Your task to perform on an android device: Go to settings Image 0: 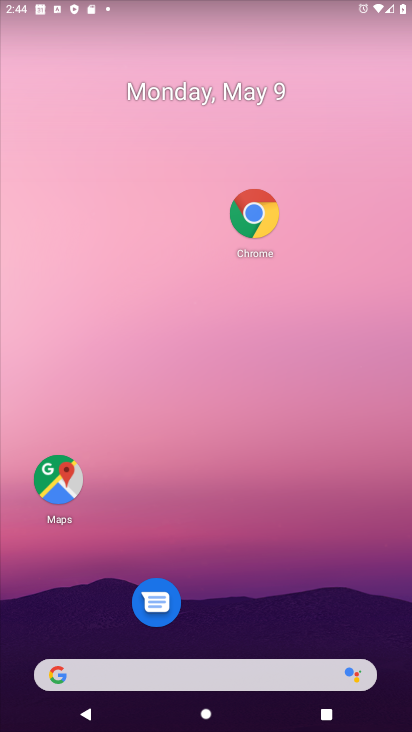
Step 0: drag from (259, 583) to (259, 402)
Your task to perform on an android device: Go to settings Image 1: 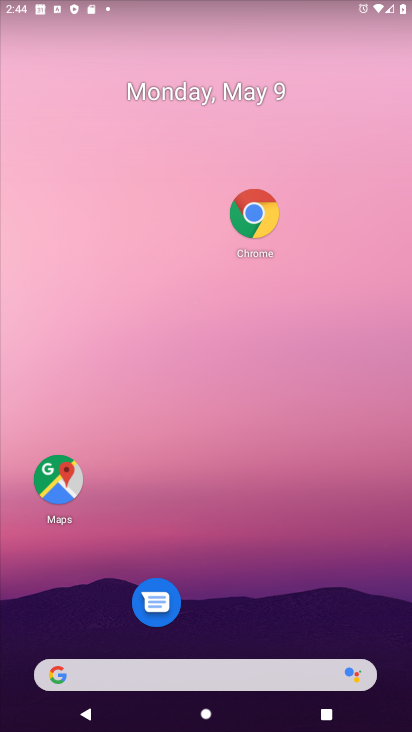
Step 1: drag from (321, 585) to (313, 67)
Your task to perform on an android device: Go to settings Image 2: 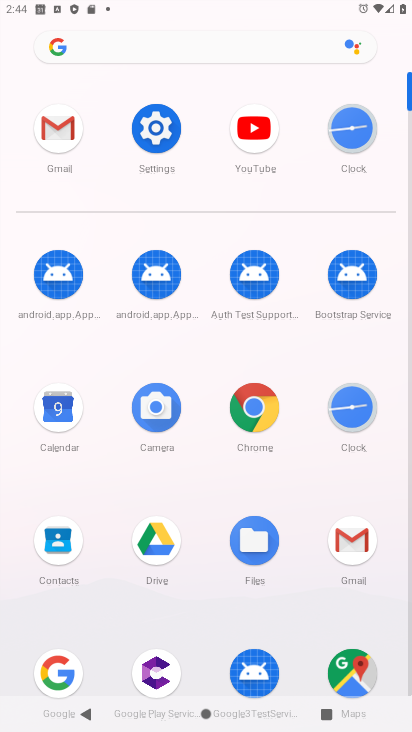
Step 2: click (167, 132)
Your task to perform on an android device: Go to settings Image 3: 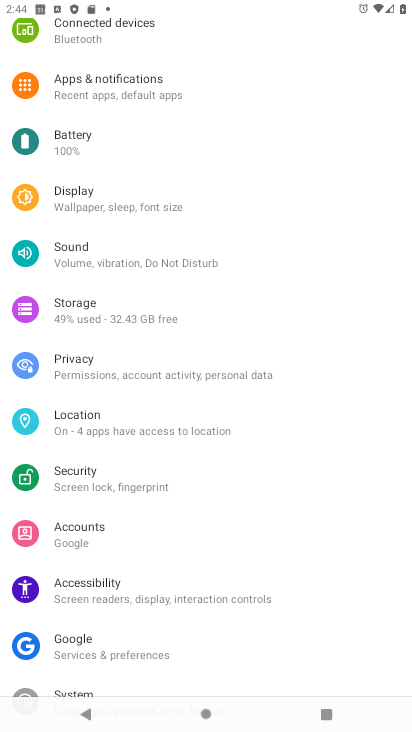
Step 3: task complete